Your task to perform on an android device: Search for "acer predator" on walmart, select the first entry, and add it to the cart. Image 0: 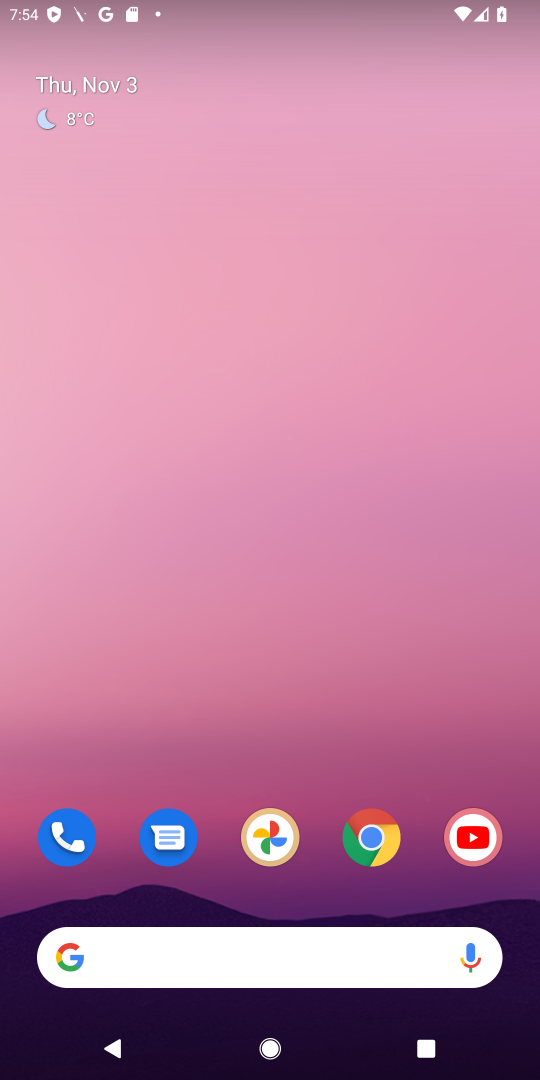
Step 0: click (377, 833)
Your task to perform on an android device: Search for "acer predator" on walmart, select the first entry, and add it to the cart. Image 1: 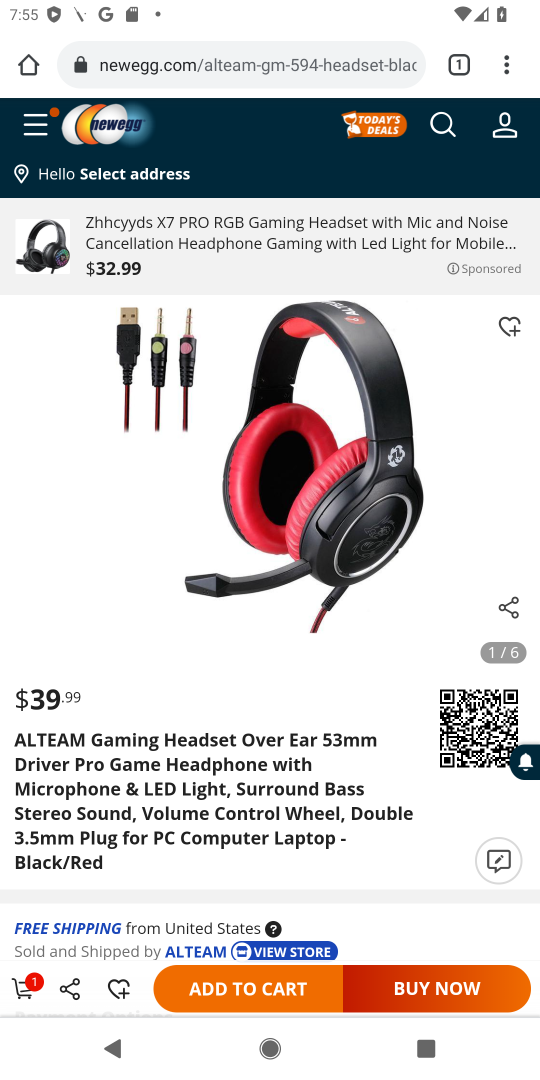
Step 1: click (168, 68)
Your task to perform on an android device: Search for "acer predator" on walmart, select the first entry, and add it to the cart. Image 2: 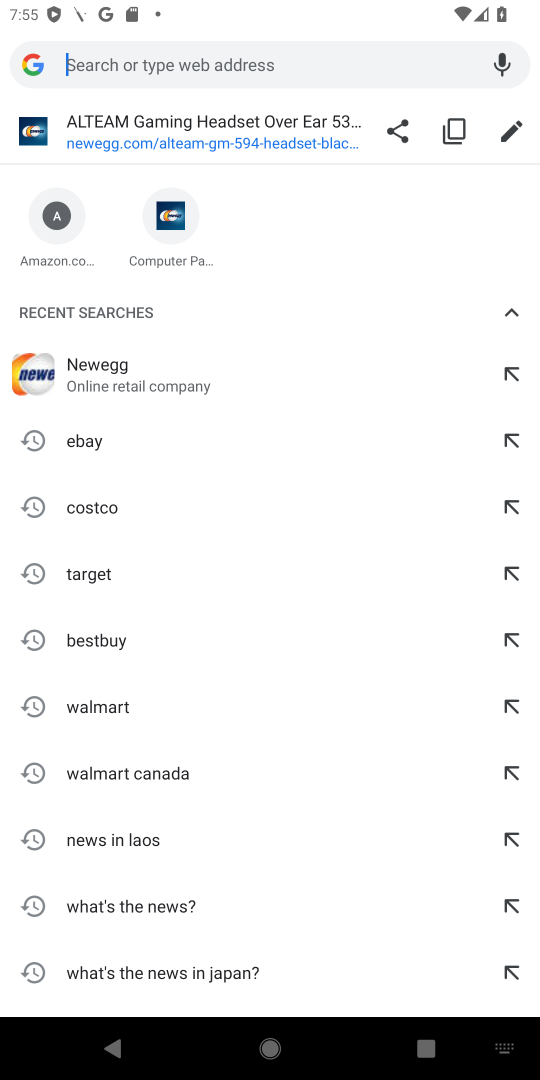
Step 2: click (105, 703)
Your task to perform on an android device: Search for "acer predator" on walmart, select the first entry, and add it to the cart. Image 3: 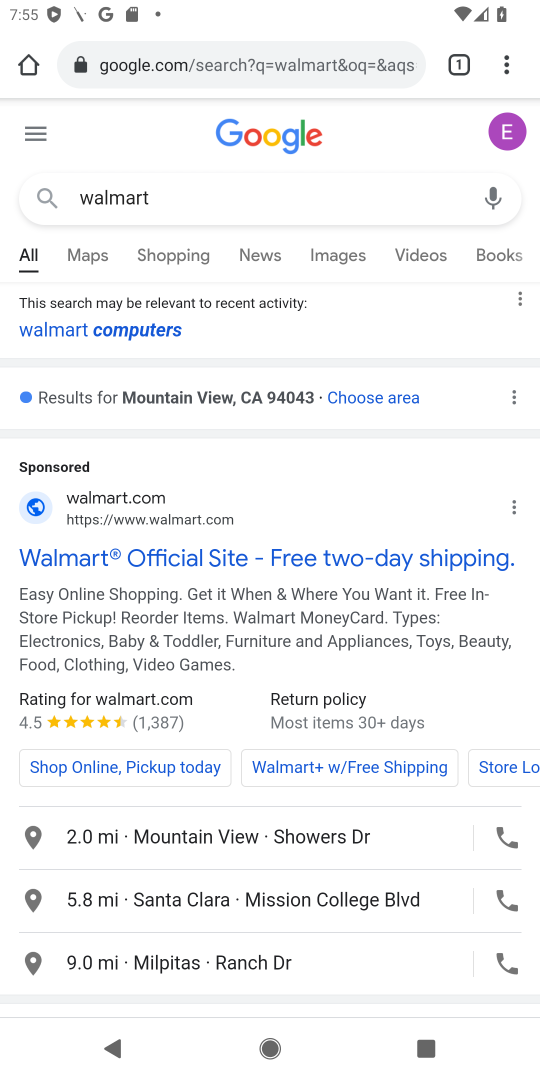
Step 3: click (179, 560)
Your task to perform on an android device: Search for "acer predator" on walmart, select the first entry, and add it to the cart. Image 4: 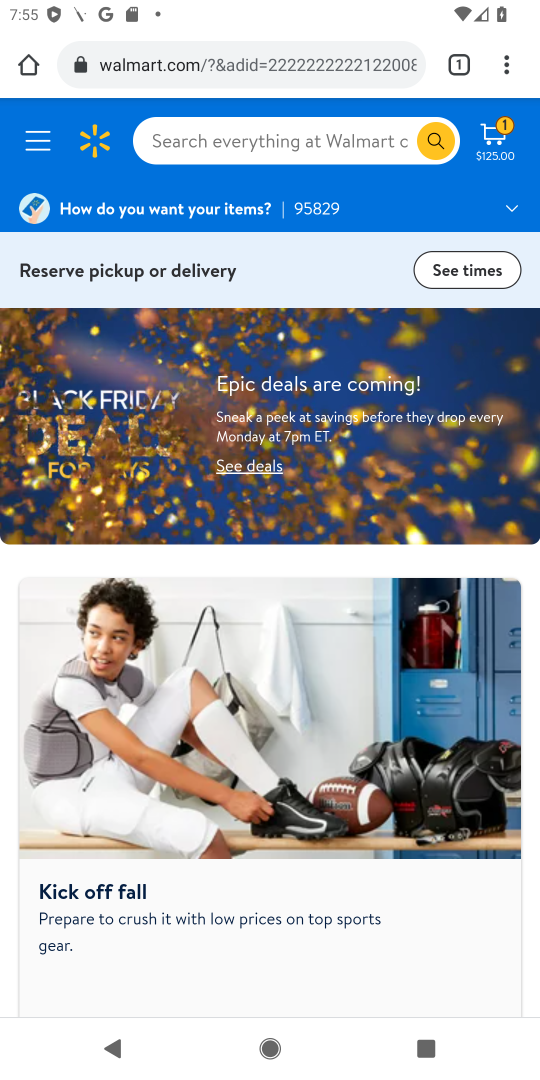
Step 4: click (283, 132)
Your task to perform on an android device: Search for "acer predator" on walmart, select the first entry, and add it to the cart. Image 5: 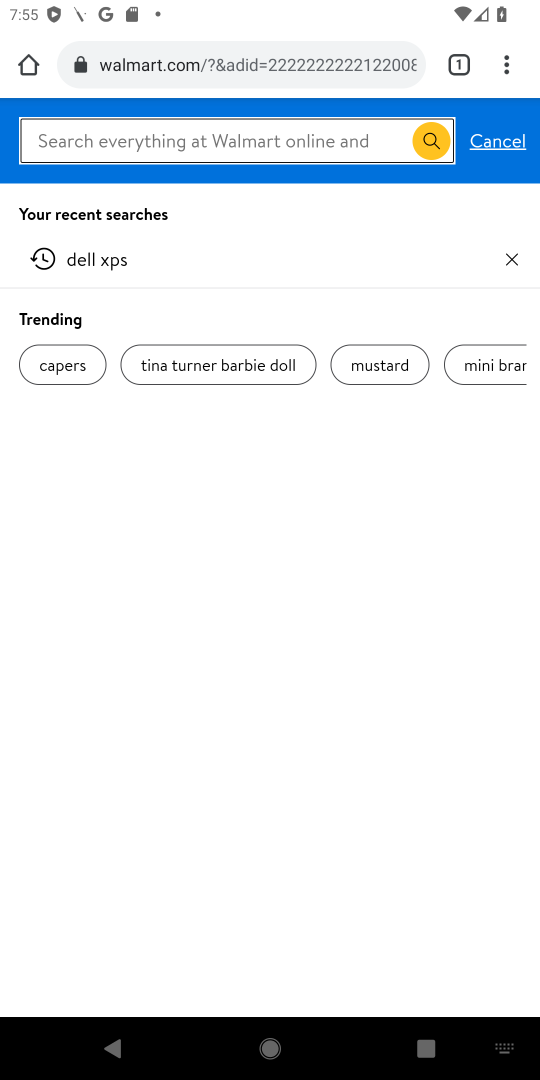
Step 5: type "acer predator"
Your task to perform on an android device: Search for "acer predator" on walmart, select the first entry, and add it to the cart. Image 6: 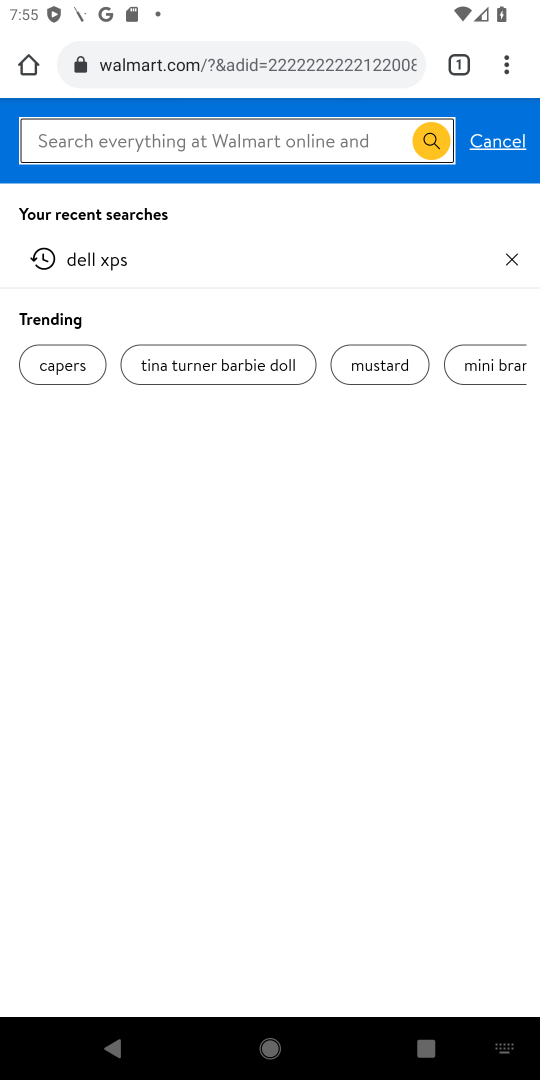
Step 6: press enter
Your task to perform on an android device: Search for "acer predator" on walmart, select the first entry, and add it to the cart. Image 7: 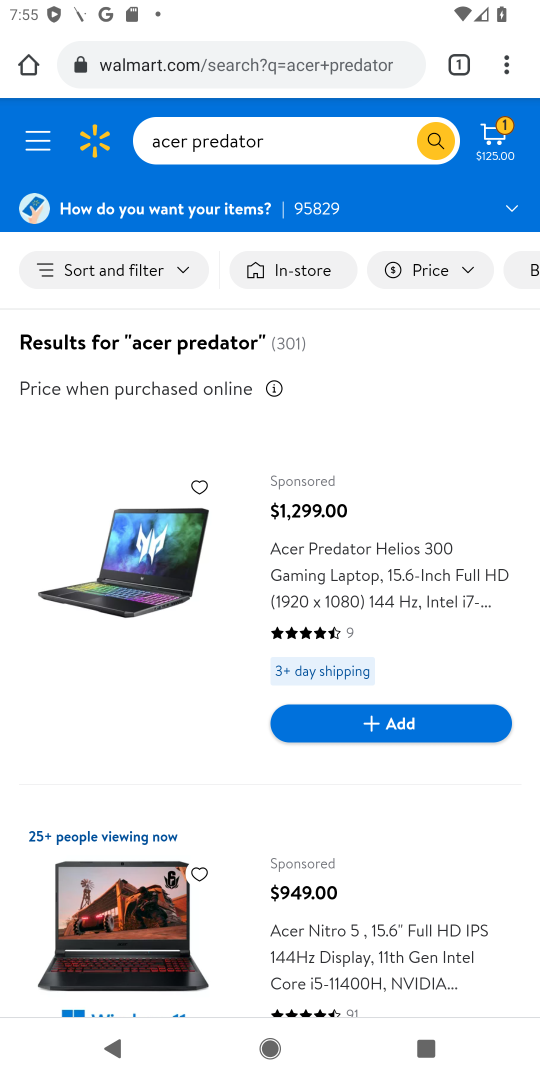
Step 7: click (395, 719)
Your task to perform on an android device: Search for "acer predator" on walmart, select the first entry, and add it to the cart. Image 8: 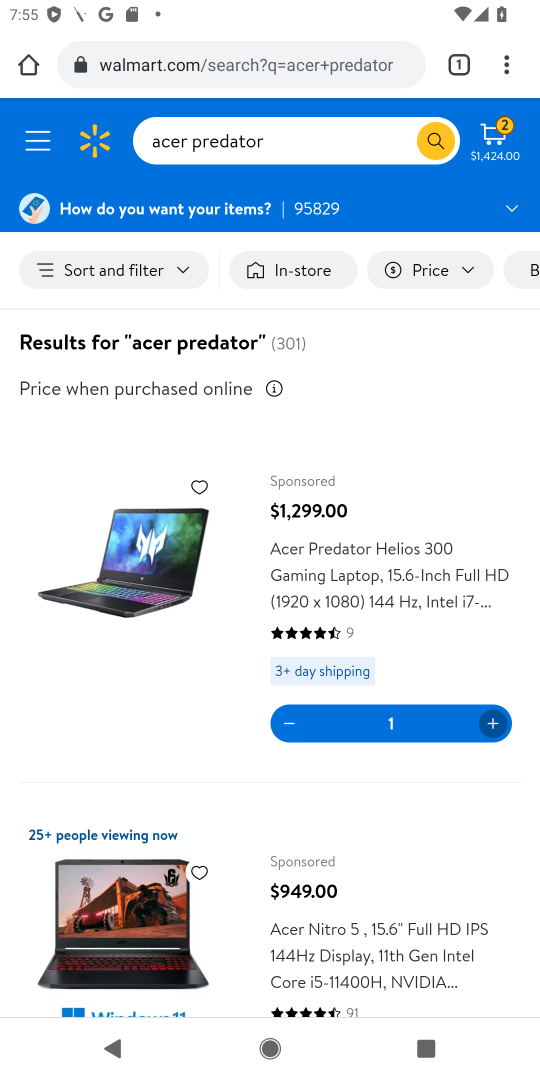
Step 8: click (503, 137)
Your task to perform on an android device: Search for "acer predator" on walmart, select the first entry, and add it to the cart. Image 9: 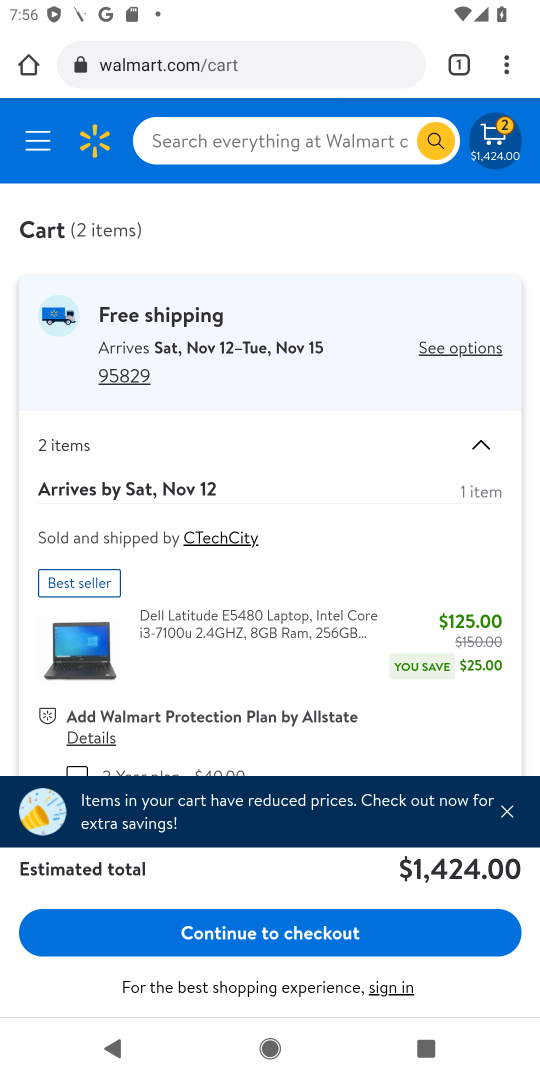
Step 9: drag from (340, 729) to (397, 484)
Your task to perform on an android device: Search for "acer predator" on walmart, select the first entry, and add it to the cart. Image 10: 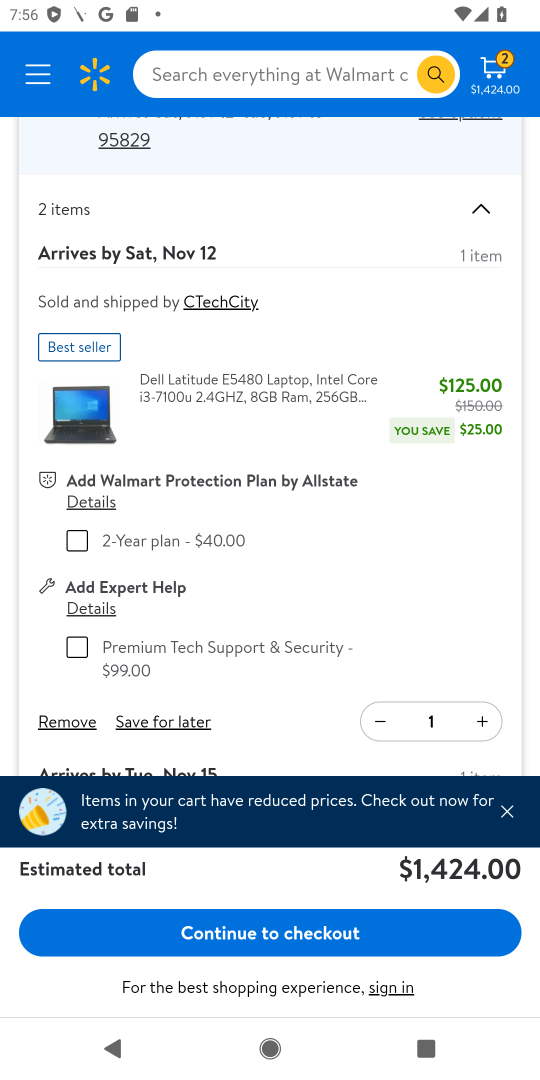
Step 10: drag from (238, 578) to (305, 365)
Your task to perform on an android device: Search for "acer predator" on walmart, select the first entry, and add it to the cart. Image 11: 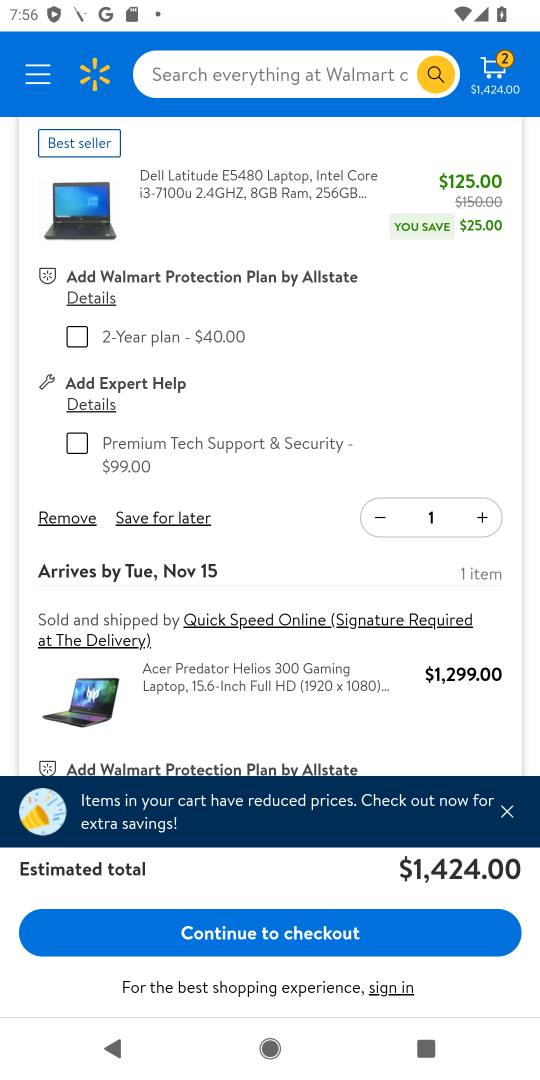
Step 11: click (68, 522)
Your task to perform on an android device: Search for "acer predator" on walmart, select the first entry, and add it to the cart. Image 12: 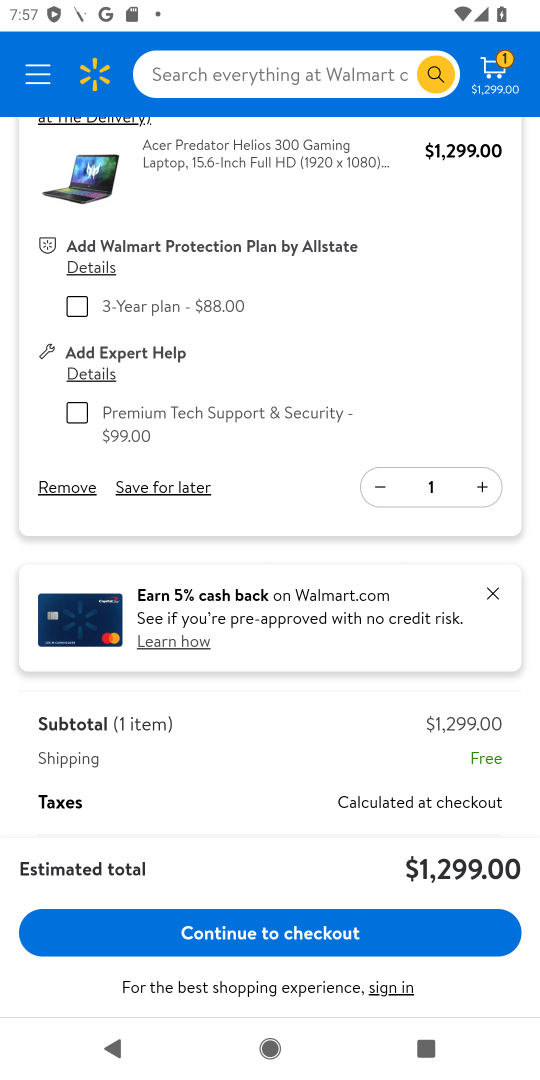
Step 12: task complete